Your task to perform on an android device: snooze an email in the gmail app Image 0: 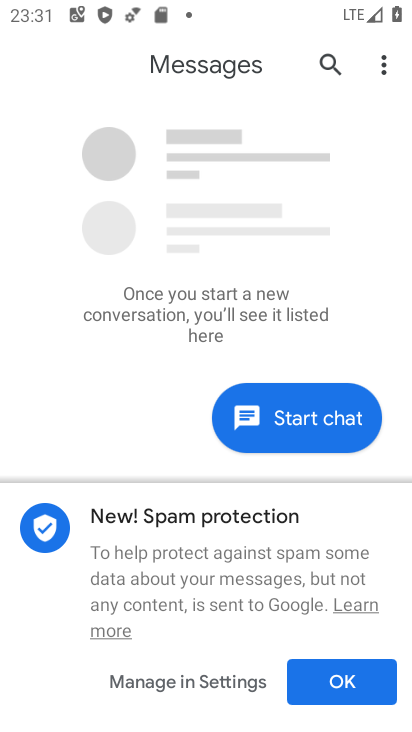
Step 0: click (264, 709)
Your task to perform on an android device: snooze an email in the gmail app Image 1: 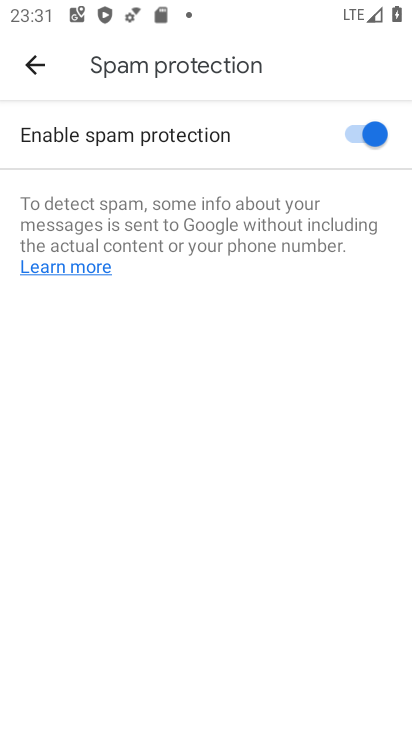
Step 1: press back button
Your task to perform on an android device: snooze an email in the gmail app Image 2: 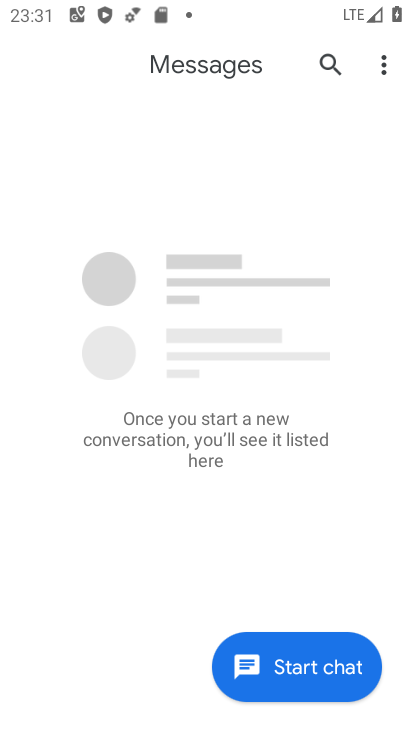
Step 2: press home button
Your task to perform on an android device: snooze an email in the gmail app Image 3: 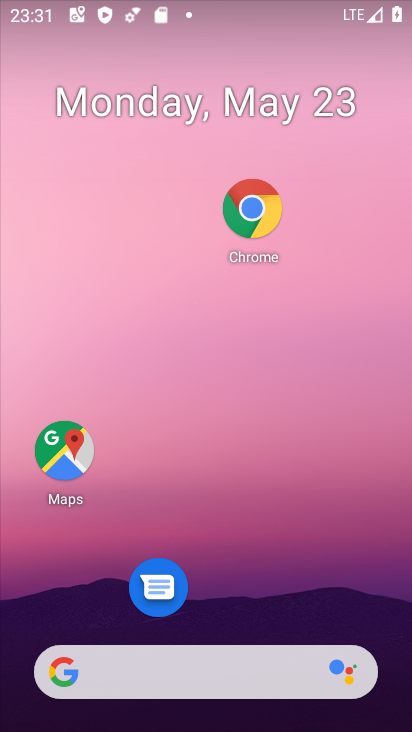
Step 3: drag from (311, 674) to (188, 86)
Your task to perform on an android device: snooze an email in the gmail app Image 4: 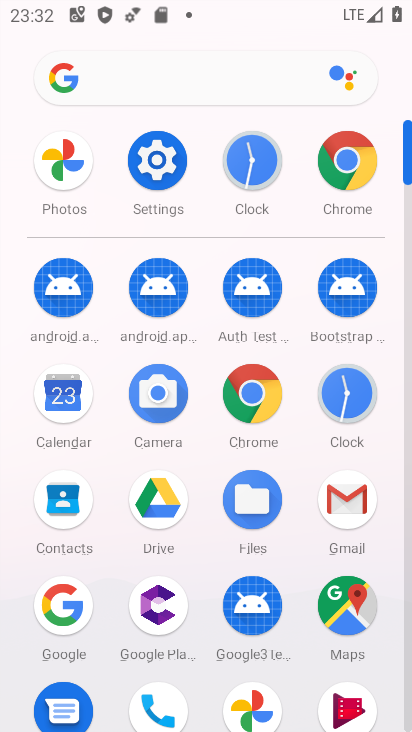
Step 4: click (350, 501)
Your task to perform on an android device: snooze an email in the gmail app Image 5: 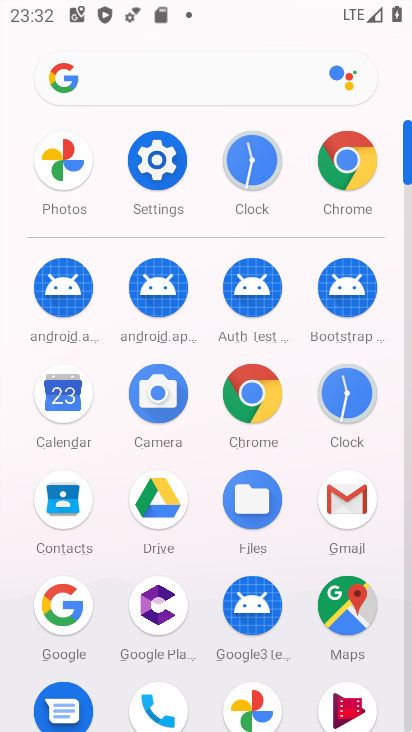
Step 5: click (350, 501)
Your task to perform on an android device: snooze an email in the gmail app Image 6: 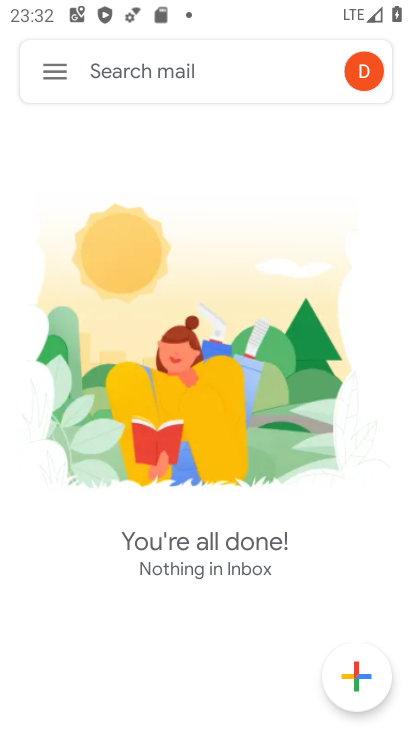
Step 6: click (71, 76)
Your task to perform on an android device: snooze an email in the gmail app Image 7: 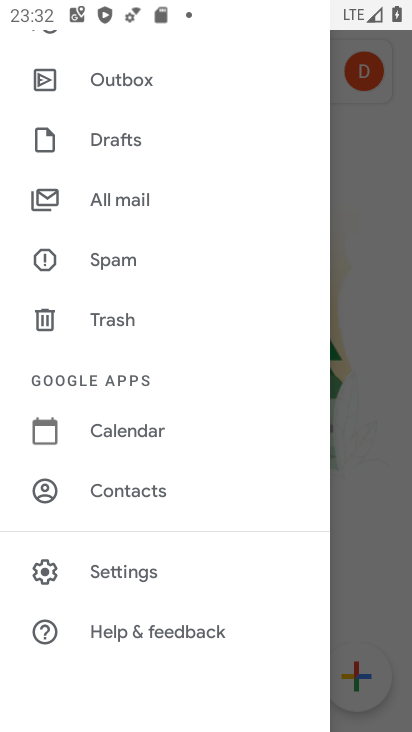
Step 7: drag from (98, 121) to (125, 583)
Your task to perform on an android device: snooze an email in the gmail app Image 8: 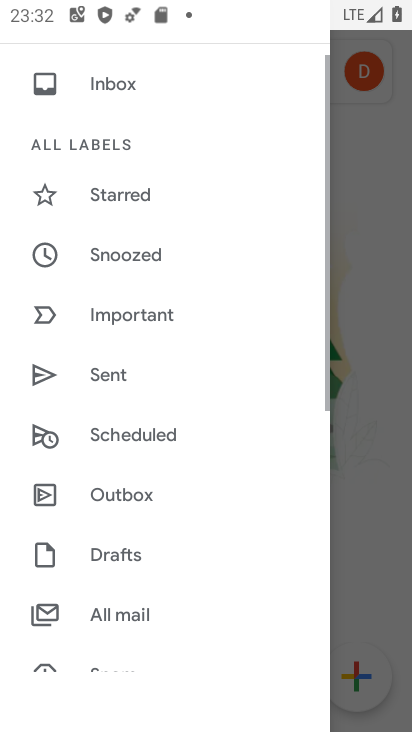
Step 8: drag from (135, 255) to (180, 624)
Your task to perform on an android device: snooze an email in the gmail app Image 9: 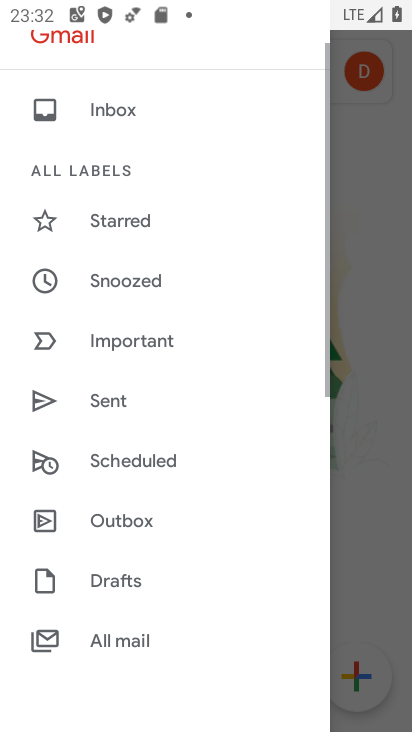
Step 9: drag from (130, 127) to (130, 630)
Your task to perform on an android device: snooze an email in the gmail app Image 10: 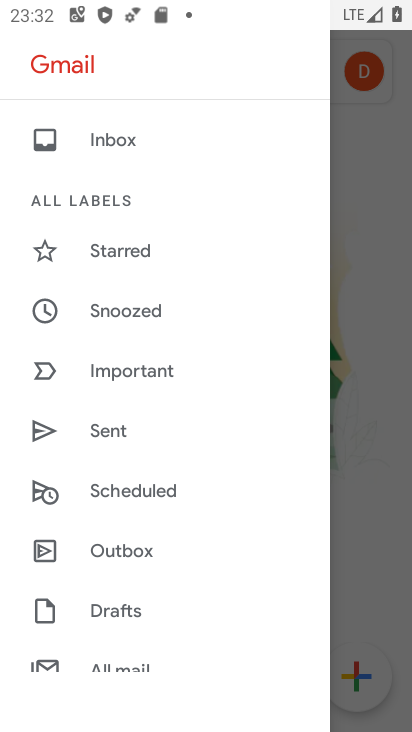
Step 10: click (126, 310)
Your task to perform on an android device: snooze an email in the gmail app Image 11: 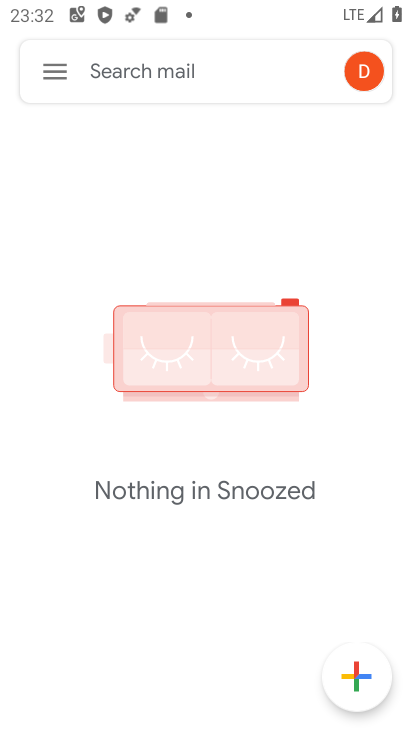
Step 11: task complete